Your task to perform on an android device: What's on my calendar tomorrow? Image 0: 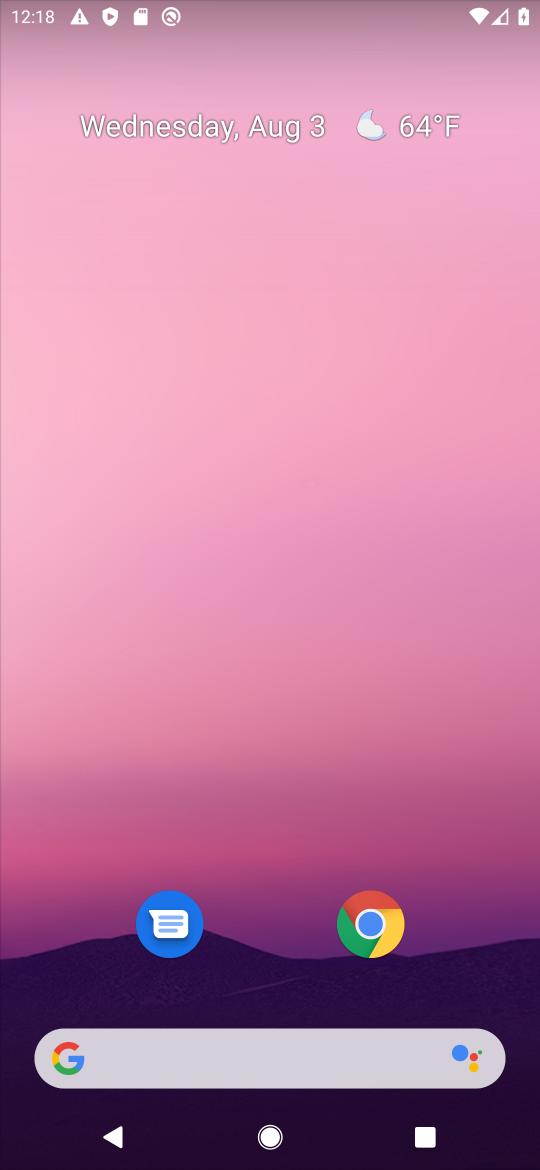
Step 0: drag from (84, 772) to (169, 142)
Your task to perform on an android device: What's on my calendar tomorrow? Image 1: 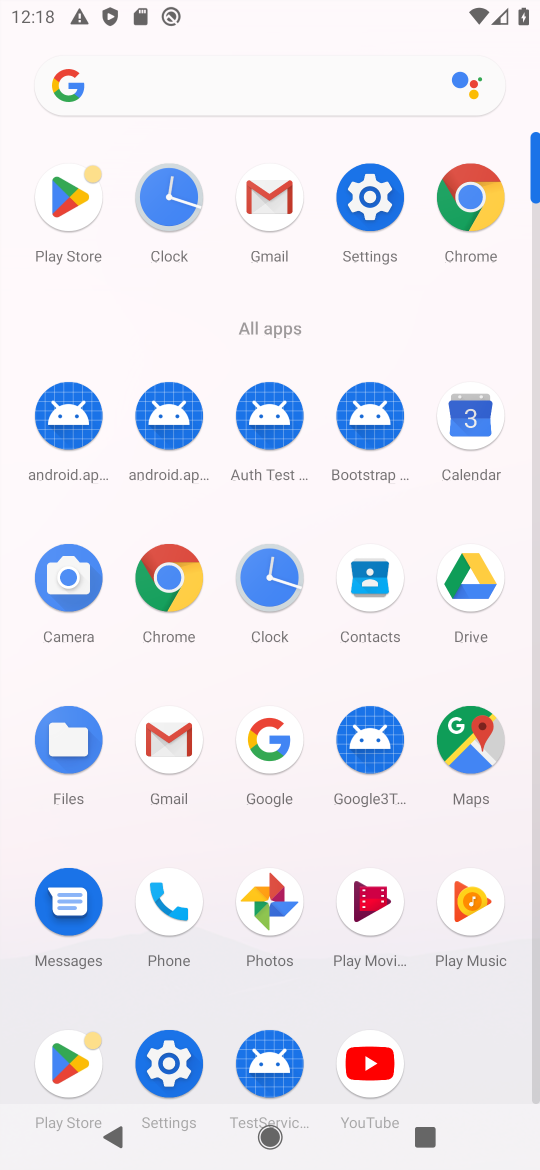
Step 1: click (451, 418)
Your task to perform on an android device: What's on my calendar tomorrow? Image 2: 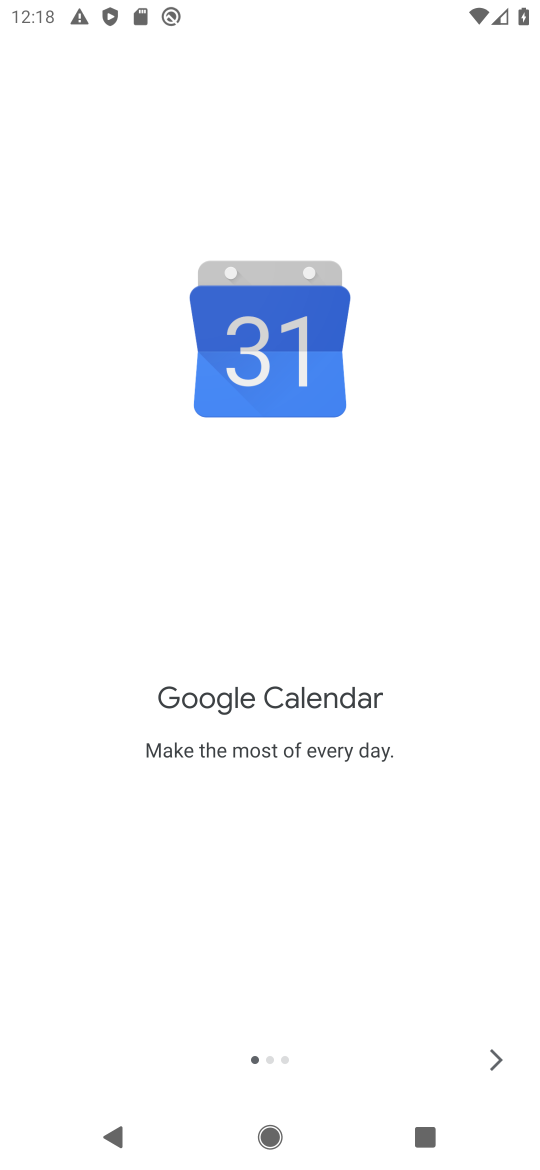
Step 2: click (503, 1043)
Your task to perform on an android device: What's on my calendar tomorrow? Image 3: 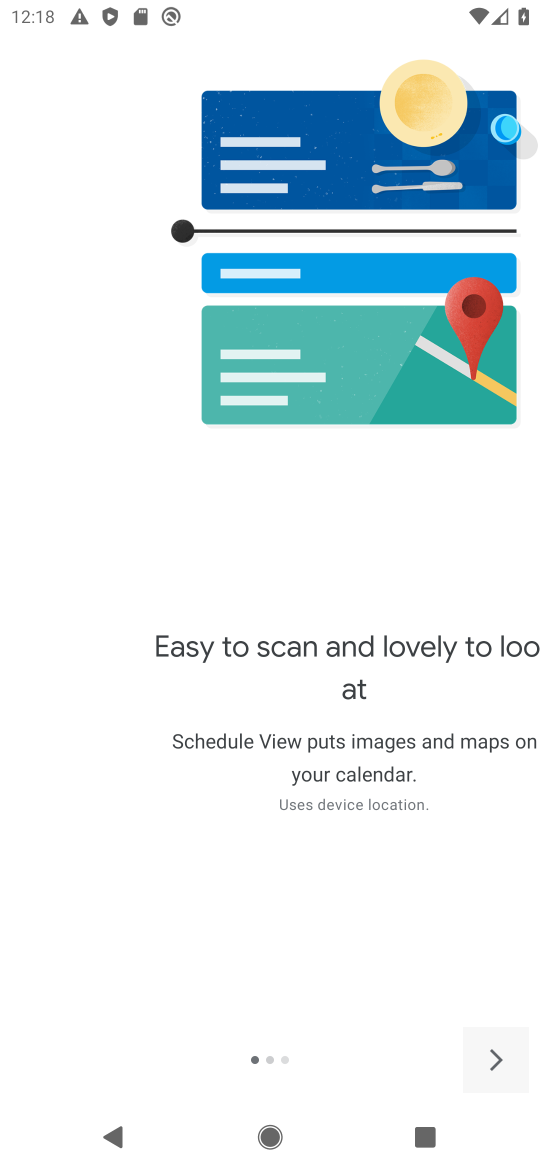
Step 3: click (503, 1043)
Your task to perform on an android device: What's on my calendar tomorrow? Image 4: 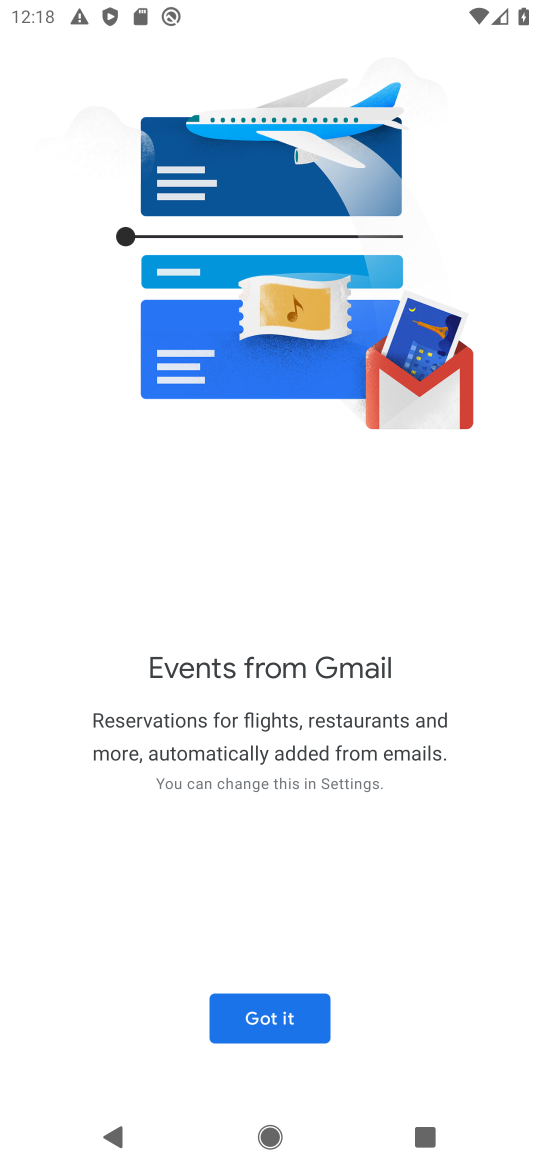
Step 4: click (294, 1020)
Your task to perform on an android device: What's on my calendar tomorrow? Image 5: 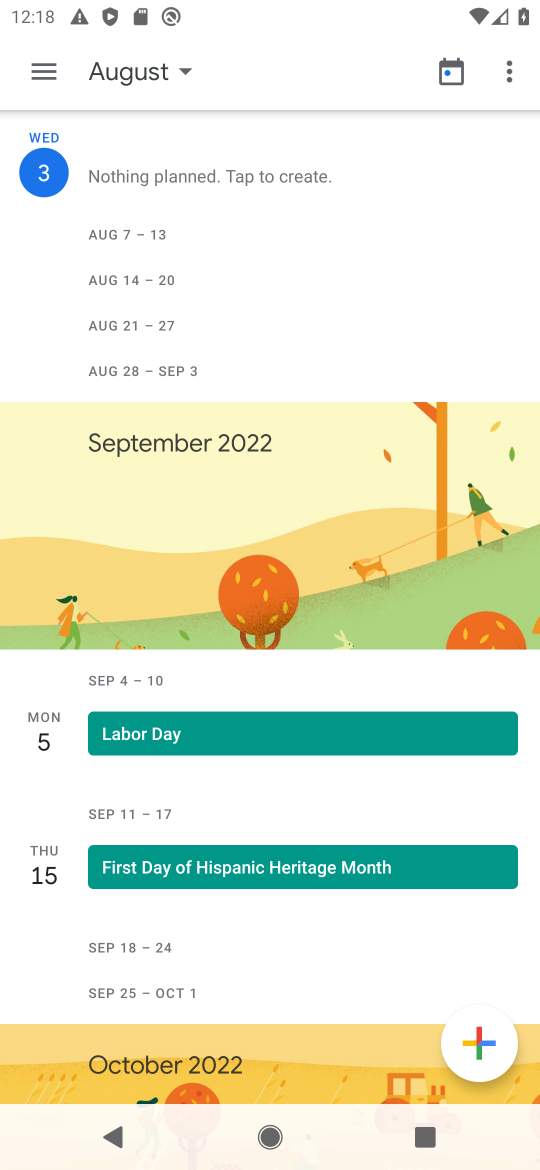
Step 5: click (184, 74)
Your task to perform on an android device: What's on my calendar tomorrow? Image 6: 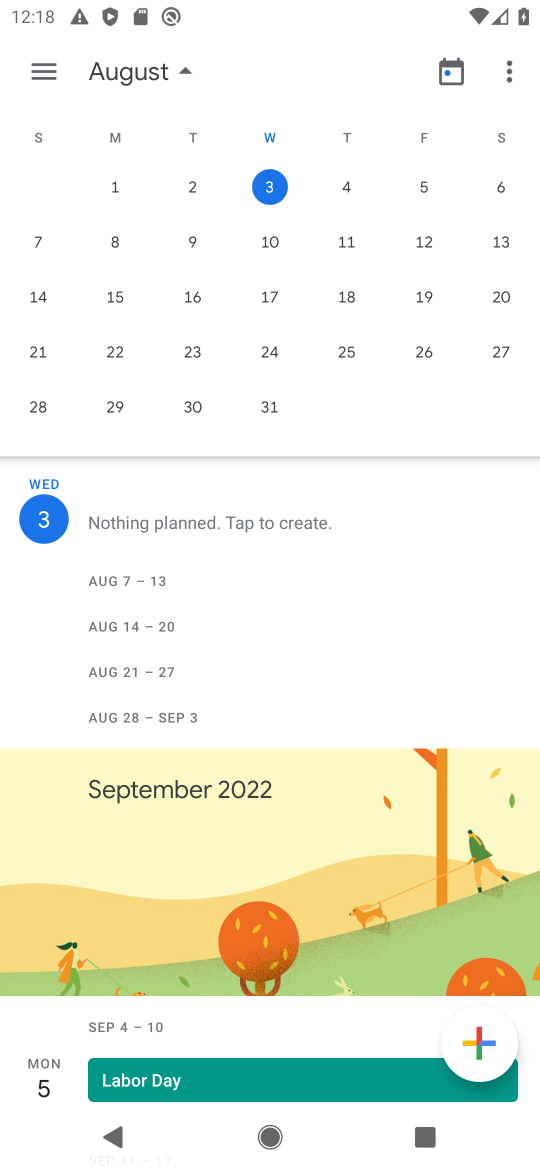
Step 6: click (353, 183)
Your task to perform on an android device: What's on my calendar tomorrow? Image 7: 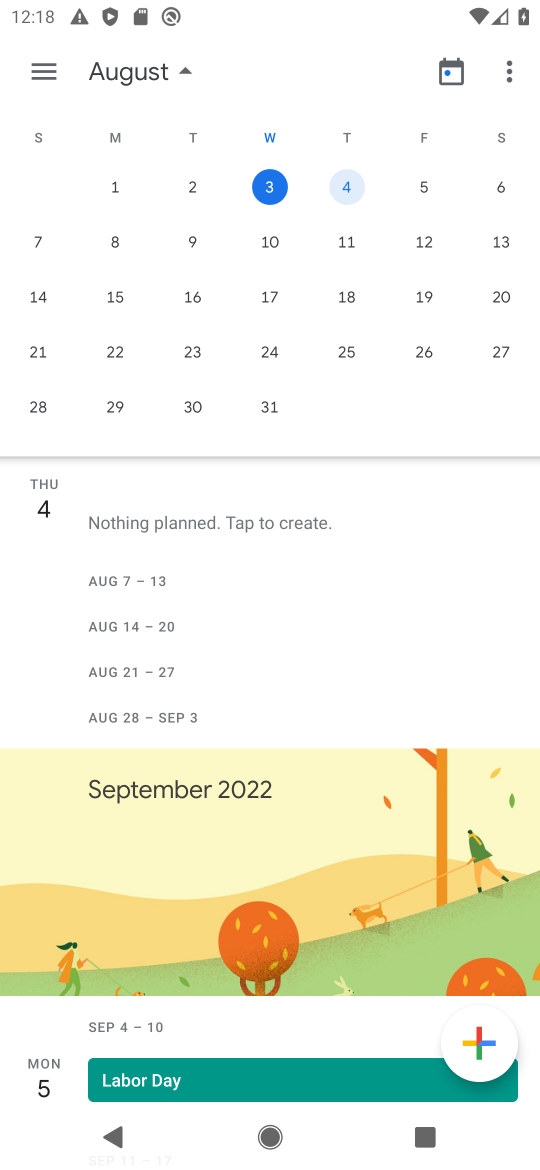
Step 7: task complete